Your task to perform on an android device: turn on translation in the chrome app Image 0: 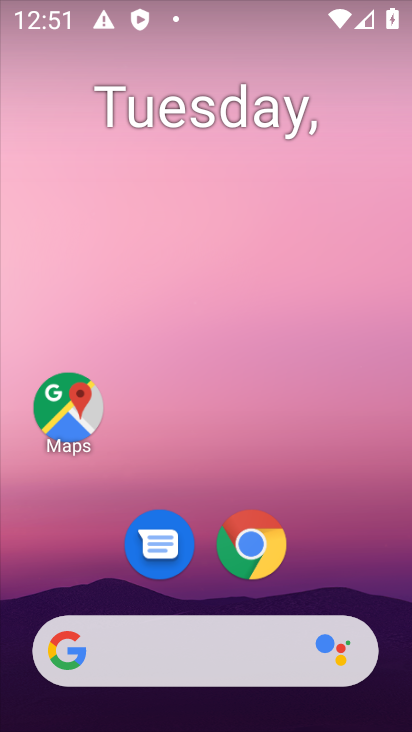
Step 0: drag from (352, 544) to (303, 8)
Your task to perform on an android device: turn on translation in the chrome app Image 1: 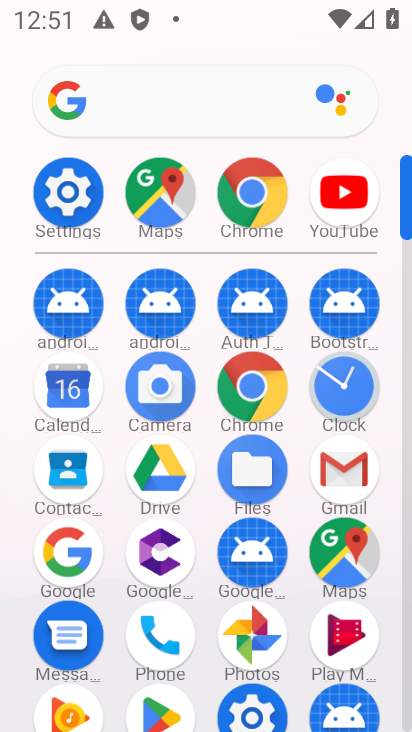
Step 1: click (245, 395)
Your task to perform on an android device: turn on translation in the chrome app Image 2: 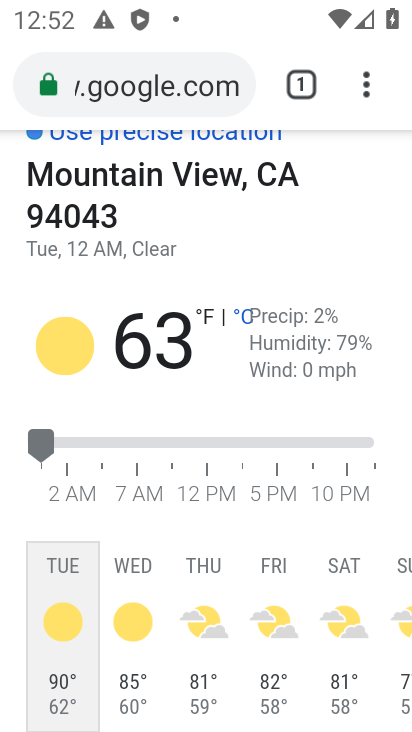
Step 2: drag from (370, 79) to (208, 601)
Your task to perform on an android device: turn on translation in the chrome app Image 3: 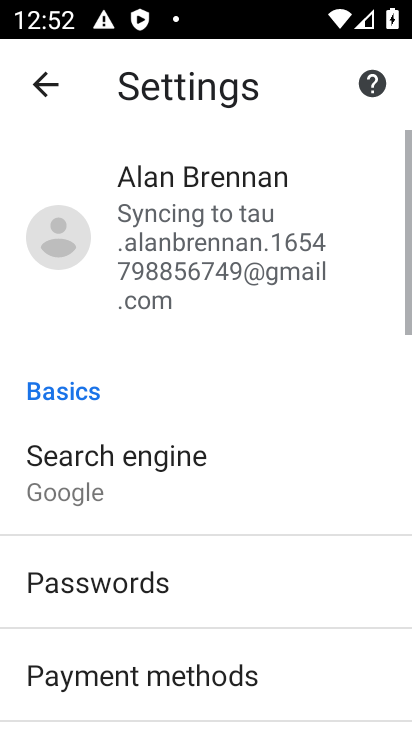
Step 3: drag from (235, 613) to (249, 45)
Your task to perform on an android device: turn on translation in the chrome app Image 4: 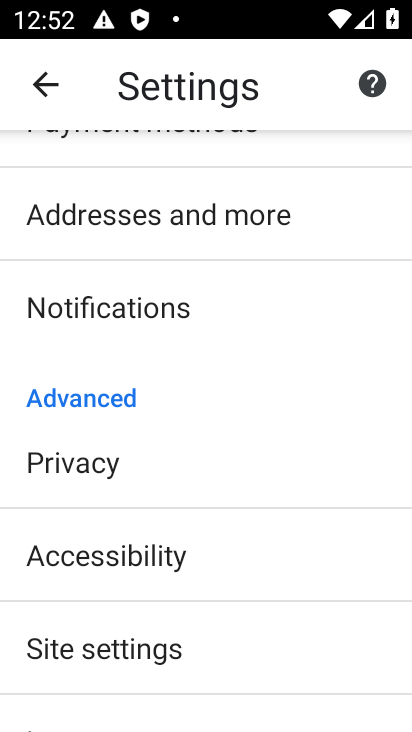
Step 4: drag from (222, 688) to (248, 159)
Your task to perform on an android device: turn on translation in the chrome app Image 5: 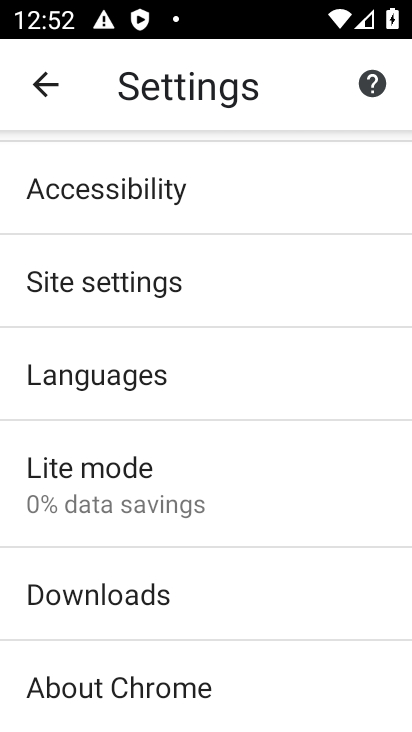
Step 5: click (143, 365)
Your task to perform on an android device: turn on translation in the chrome app Image 6: 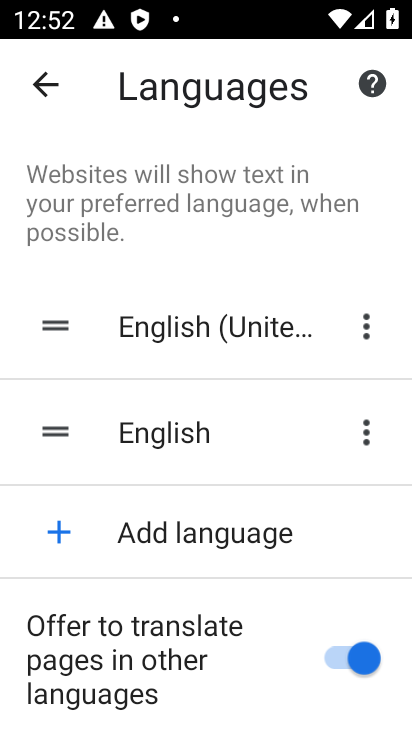
Step 6: task complete